Your task to perform on an android device: Go to Yahoo.com Image 0: 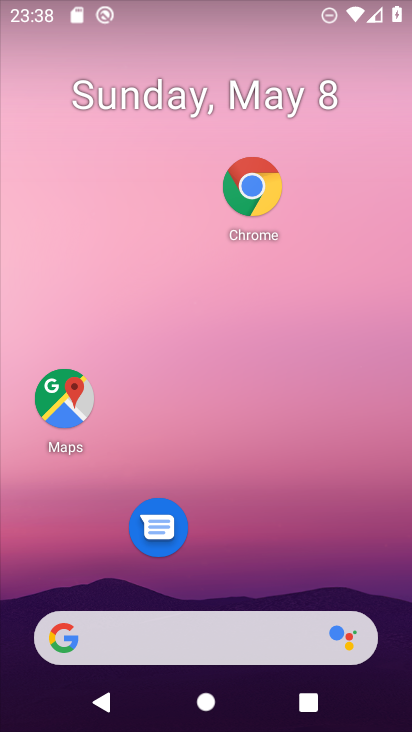
Step 0: drag from (255, 562) to (304, 225)
Your task to perform on an android device: Go to Yahoo.com Image 1: 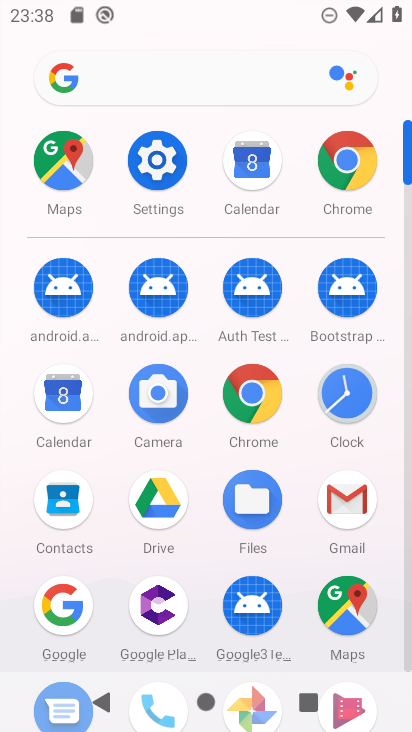
Step 1: click (232, 379)
Your task to perform on an android device: Go to Yahoo.com Image 2: 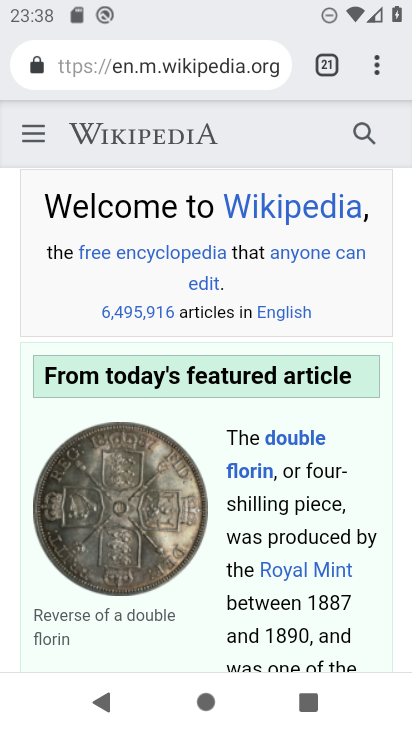
Step 2: click (363, 61)
Your task to perform on an android device: Go to Yahoo.com Image 3: 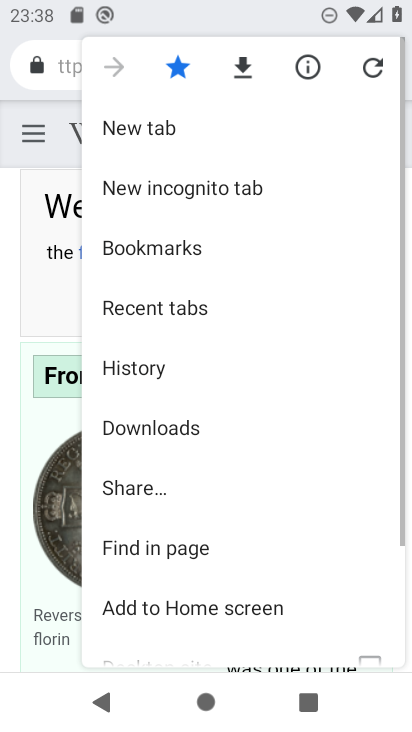
Step 3: click (189, 131)
Your task to perform on an android device: Go to Yahoo.com Image 4: 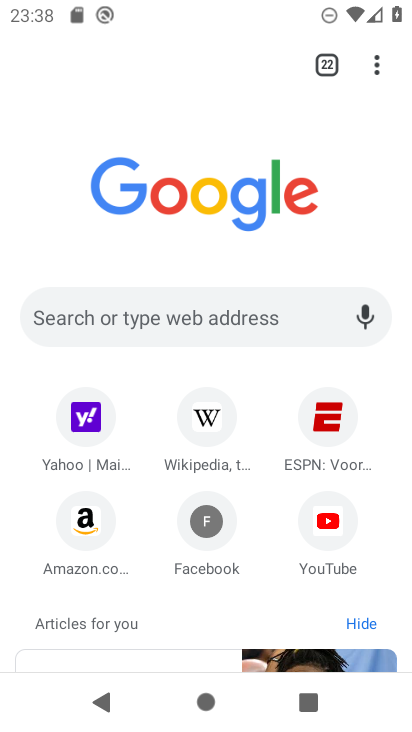
Step 4: click (70, 421)
Your task to perform on an android device: Go to Yahoo.com Image 5: 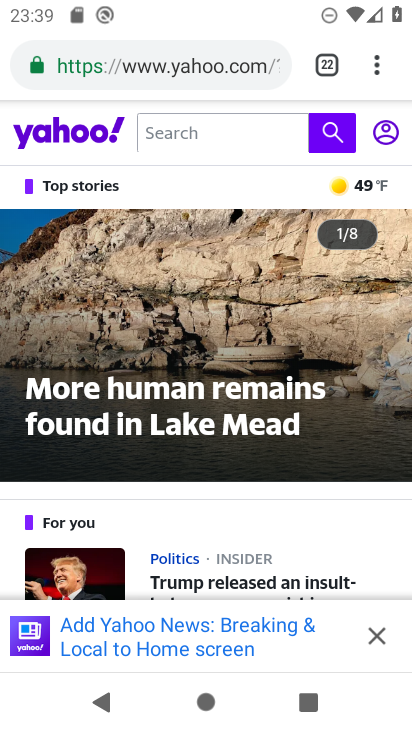
Step 5: task complete